Your task to perform on an android device: turn on the 12-hour format for clock Image 0: 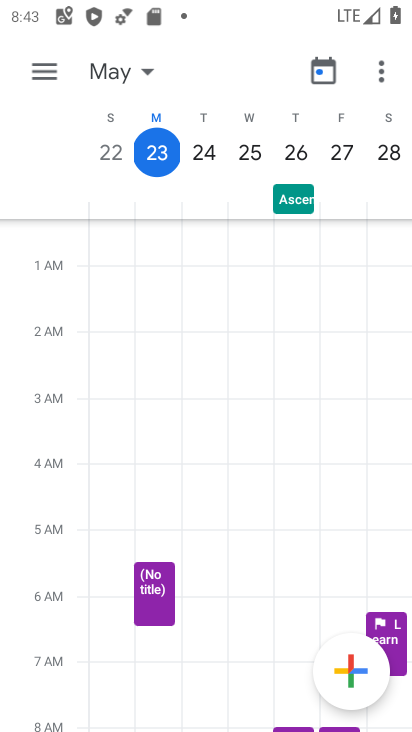
Step 0: press home button
Your task to perform on an android device: turn on the 12-hour format for clock Image 1: 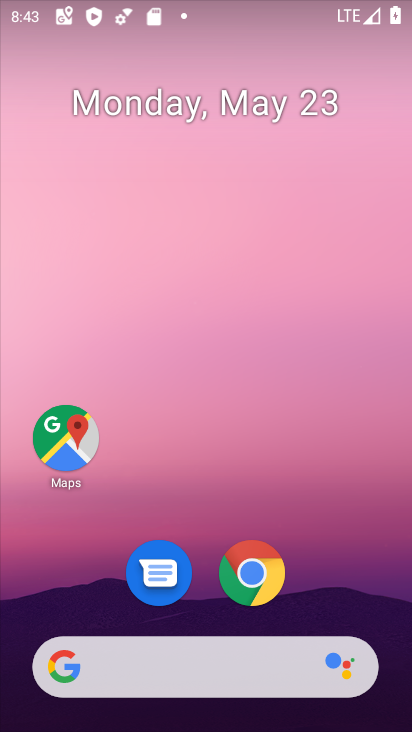
Step 1: drag from (320, 502) to (238, 29)
Your task to perform on an android device: turn on the 12-hour format for clock Image 2: 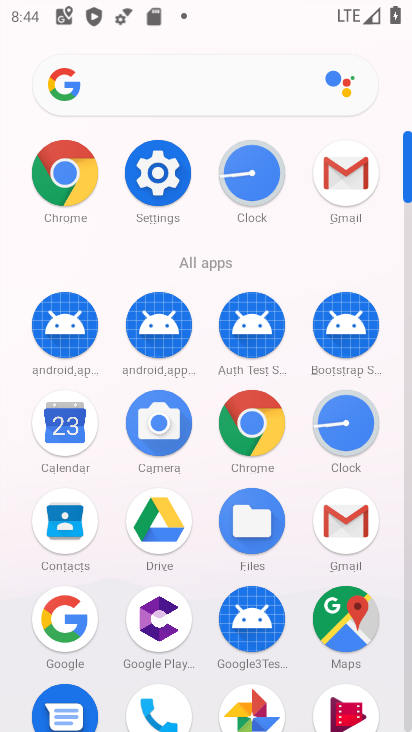
Step 2: click (255, 172)
Your task to perform on an android device: turn on the 12-hour format for clock Image 3: 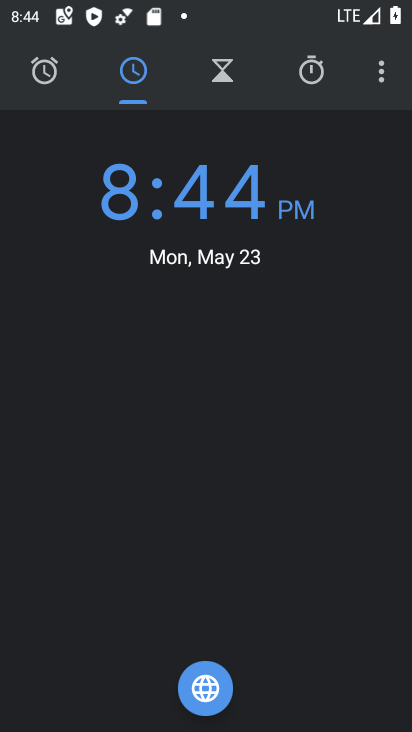
Step 3: click (377, 72)
Your task to perform on an android device: turn on the 12-hour format for clock Image 4: 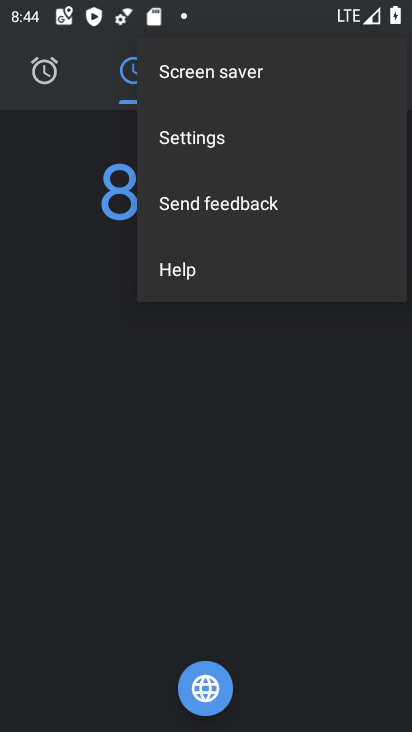
Step 4: click (301, 148)
Your task to perform on an android device: turn on the 12-hour format for clock Image 5: 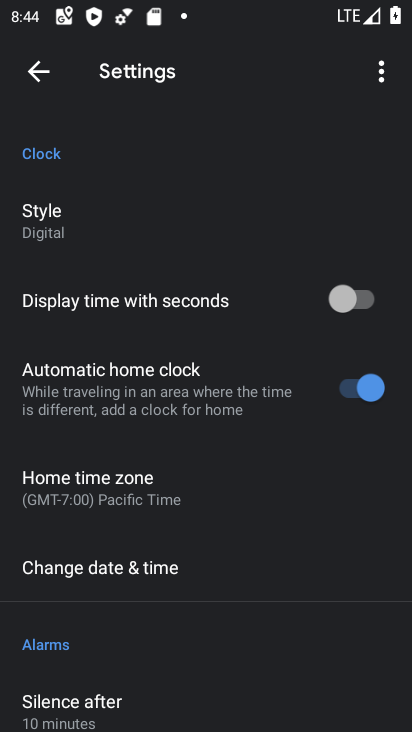
Step 5: click (227, 582)
Your task to perform on an android device: turn on the 12-hour format for clock Image 6: 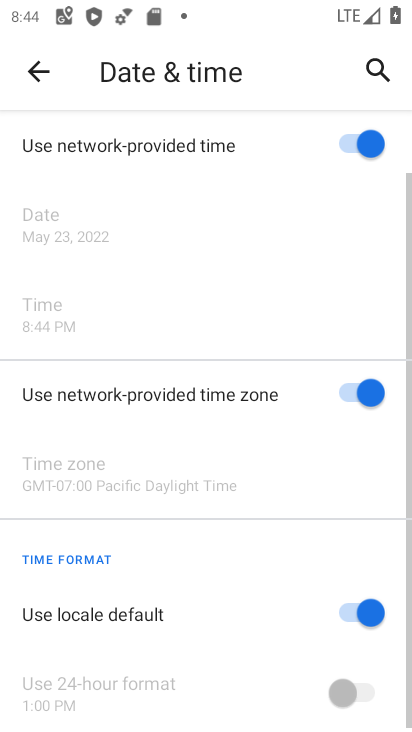
Step 6: task complete